Your task to perform on an android device: remove spam from my inbox in the gmail app Image 0: 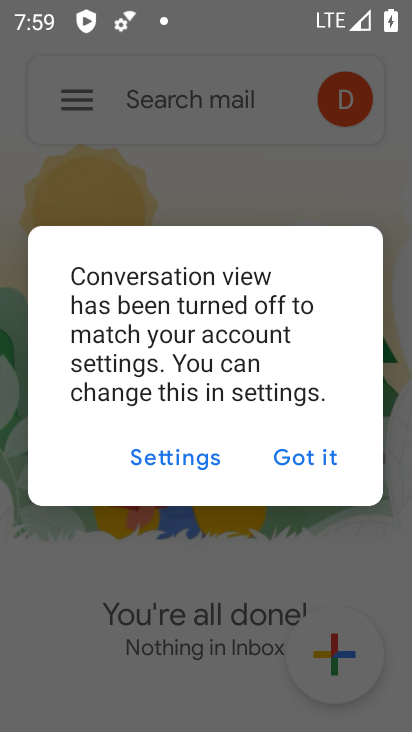
Step 0: press home button
Your task to perform on an android device: remove spam from my inbox in the gmail app Image 1: 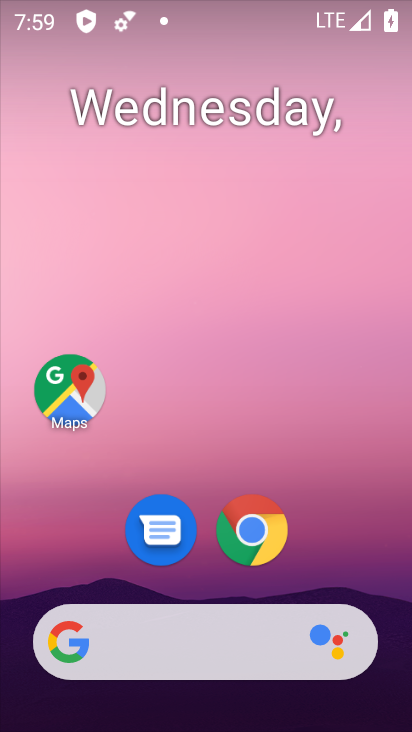
Step 1: drag from (352, 583) to (348, 235)
Your task to perform on an android device: remove spam from my inbox in the gmail app Image 2: 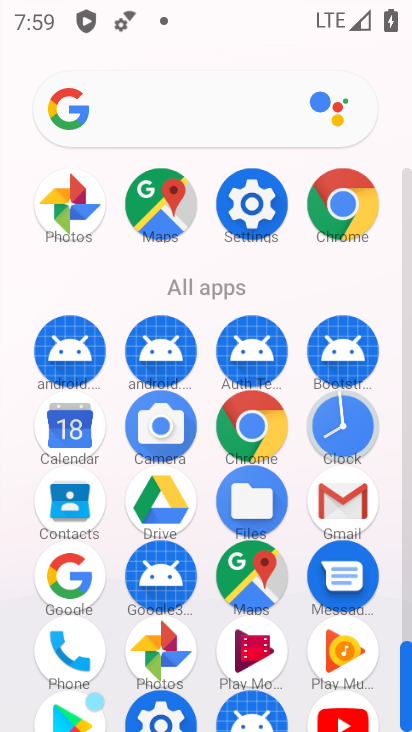
Step 2: click (330, 490)
Your task to perform on an android device: remove spam from my inbox in the gmail app Image 3: 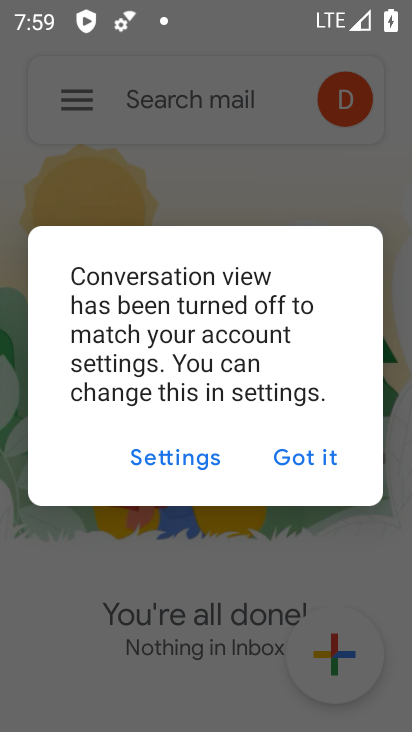
Step 3: click (317, 457)
Your task to perform on an android device: remove spam from my inbox in the gmail app Image 4: 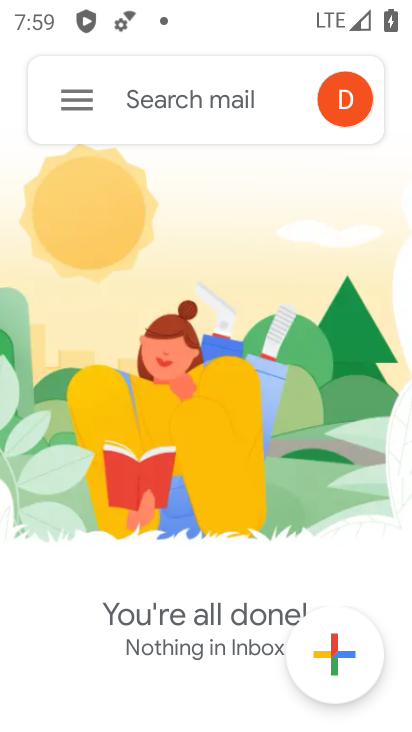
Step 4: click (75, 82)
Your task to perform on an android device: remove spam from my inbox in the gmail app Image 5: 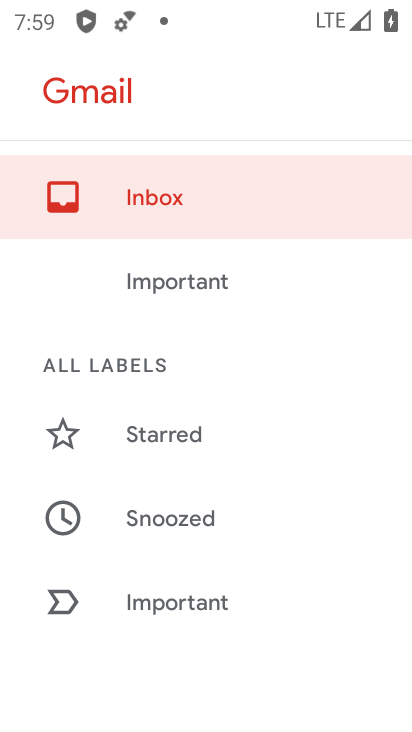
Step 5: drag from (196, 536) to (244, 200)
Your task to perform on an android device: remove spam from my inbox in the gmail app Image 6: 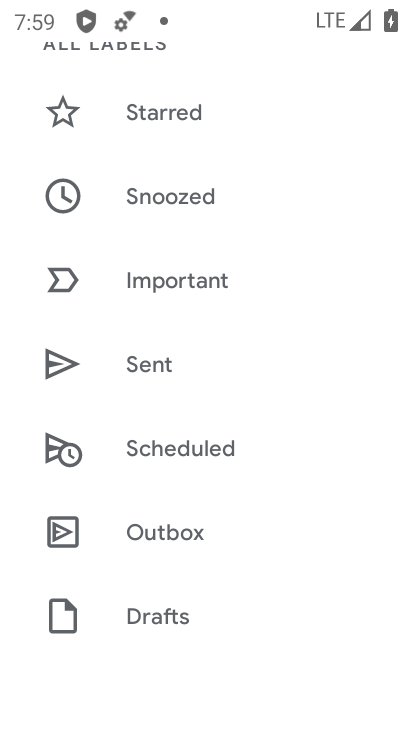
Step 6: drag from (220, 502) to (268, 162)
Your task to perform on an android device: remove spam from my inbox in the gmail app Image 7: 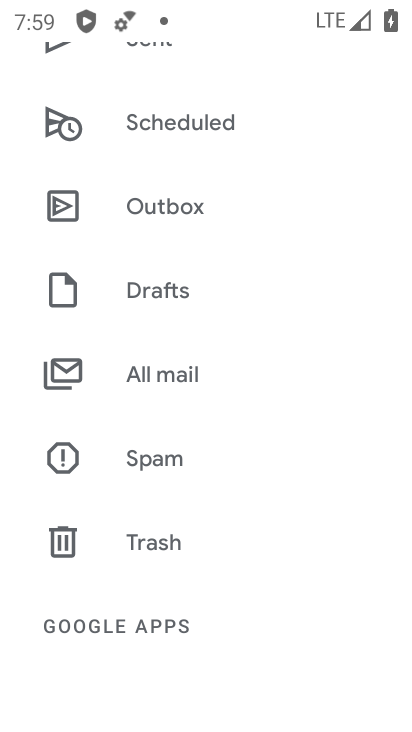
Step 7: click (196, 468)
Your task to perform on an android device: remove spam from my inbox in the gmail app Image 8: 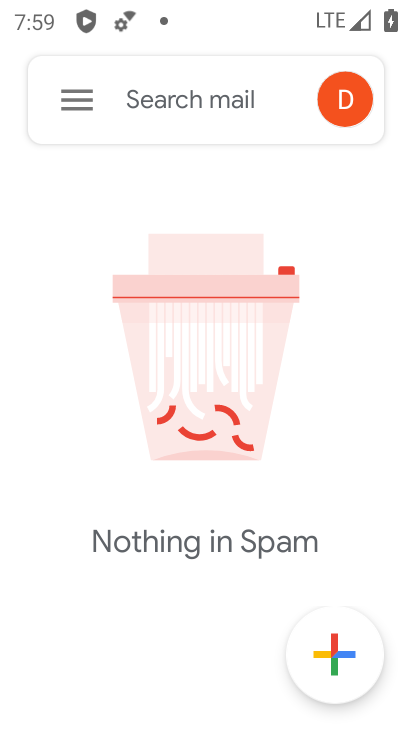
Step 8: task complete